Your task to perform on an android device: Open accessibility settings Image 0: 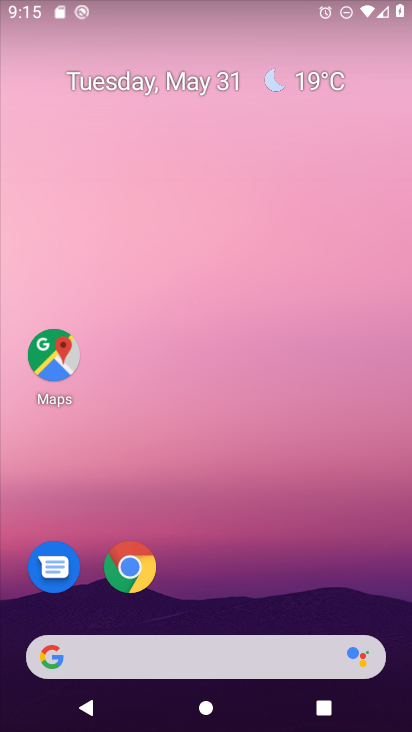
Step 0: drag from (241, 586) to (241, 118)
Your task to perform on an android device: Open accessibility settings Image 1: 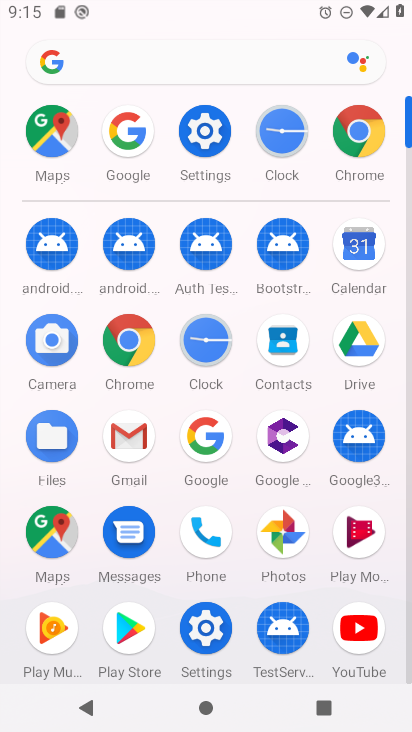
Step 1: click (209, 125)
Your task to perform on an android device: Open accessibility settings Image 2: 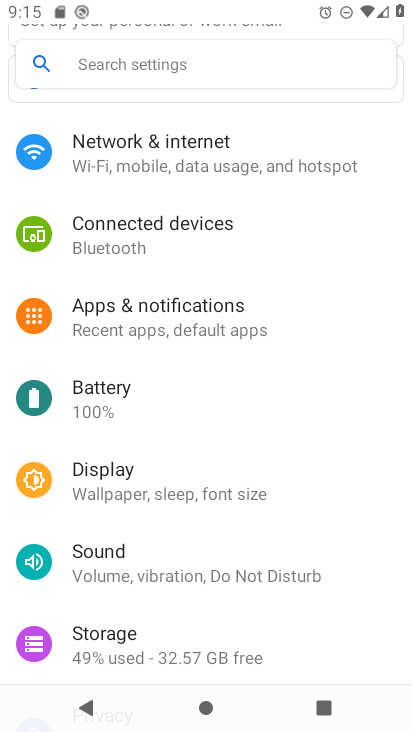
Step 2: drag from (200, 642) to (200, 162)
Your task to perform on an android device: Open accessibility settings Image 3: 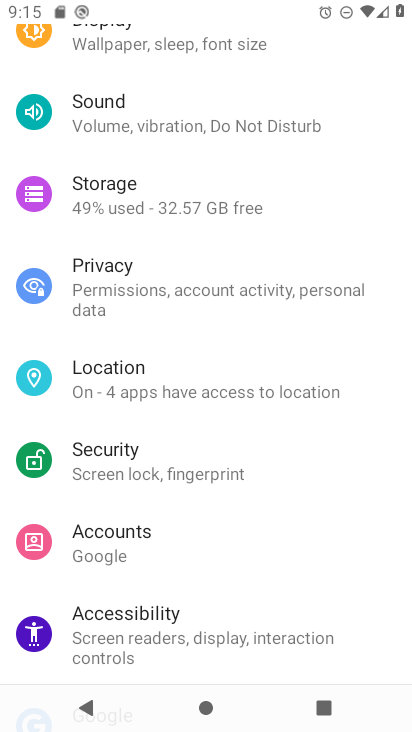
Step 3: click (138, 627)
Your task to perform on an android device: Open accessibility settings Image 4: 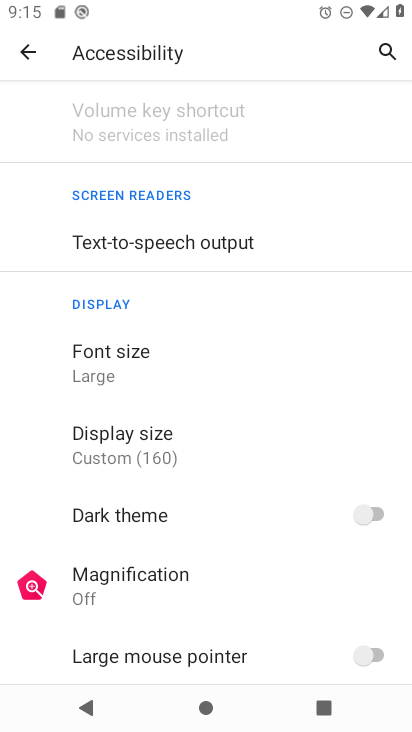
Step 4: task complete